Your task to perform on an android device: Open ESPN.com Image 0: 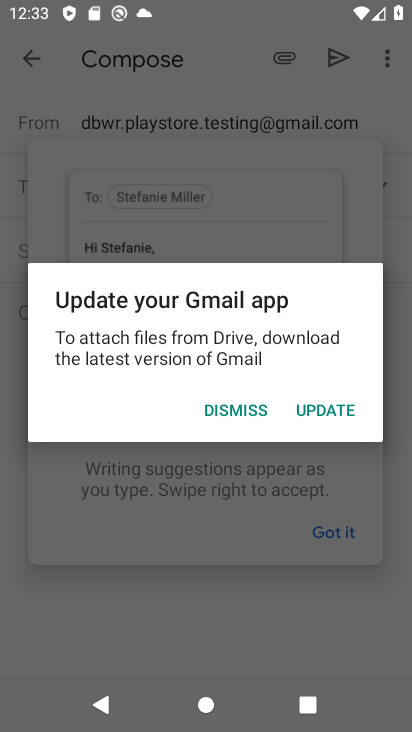
Step 0: press home button
Your task to perform on an android device: Open ESPN.com Image 1: 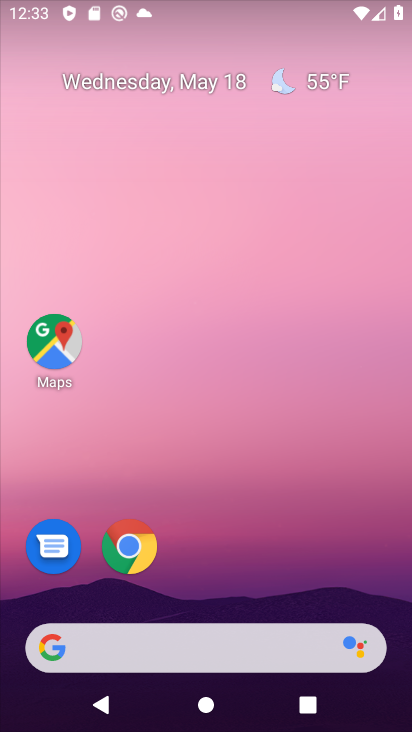
Step 1: drag from (331, 568) to (341, 92)
Your task to perform on an android device: Open ESPN.com Image 2: 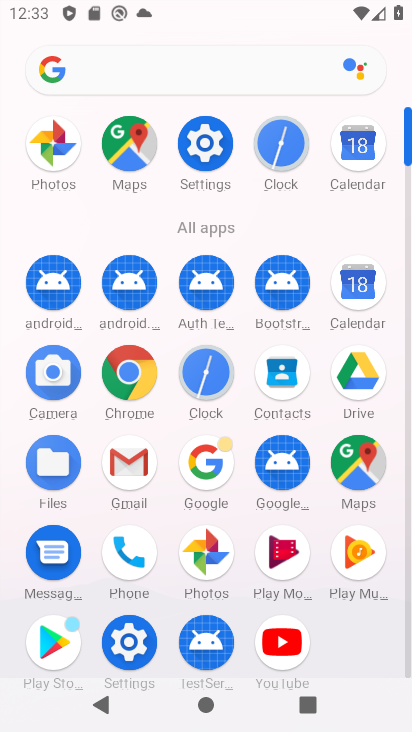
Step 2: click (135, 390)
Your task to perform on an android device: Open ESPN.com Image 3: 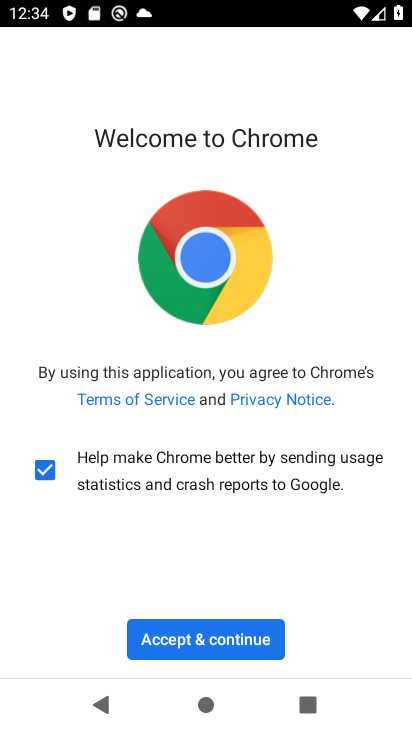
Step 3: click (195, 644)
Your task to perform on an android device: Open ESPN.com Image 4: 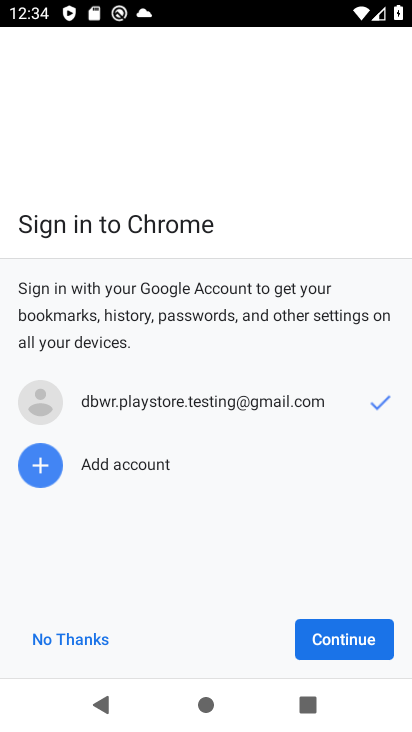
Step 4: click (335, 638)
Your task to perform on an android device: Open ESPN.com Image 5: 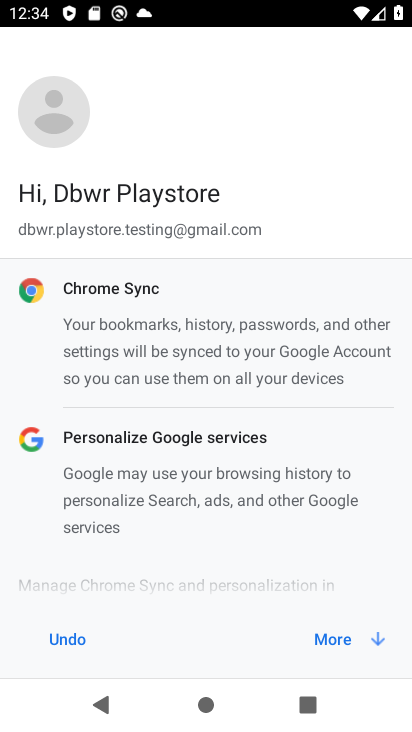
Step 5: click (332, 640)
Your task to perform on an android device: Open ESPN.com Image 6: 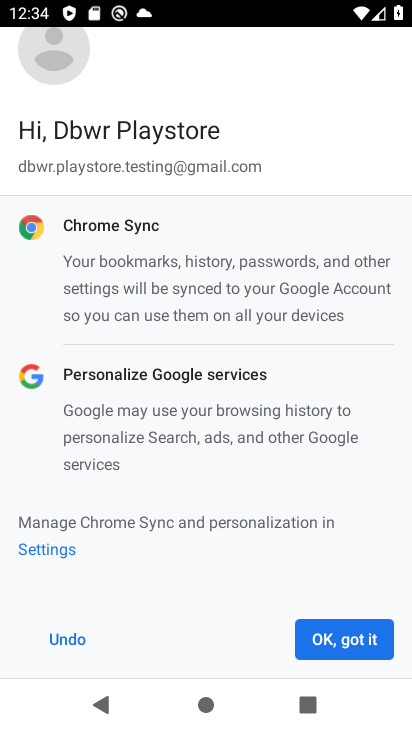
Step 6: click (332, 640)
Your task to perform on an android device: Open ESPN.com Image 7: 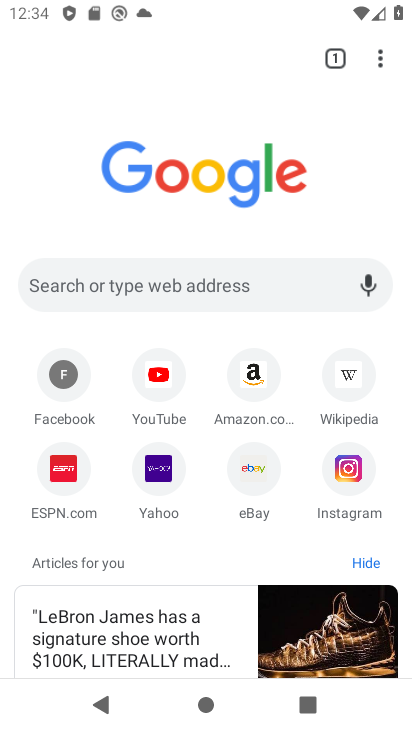
Step 7: click (222, 280)
Your task to perform on an android device: Open ESPN.com Image 8: 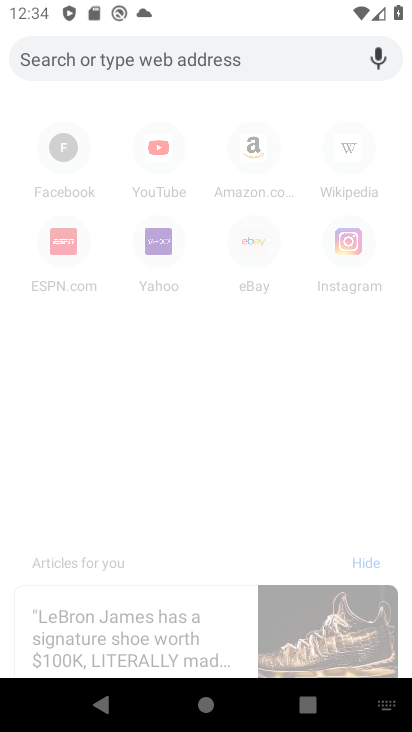
Step 8: type "espn.com"
Your task to perform on an android device: Open ESPN.com Image 9: 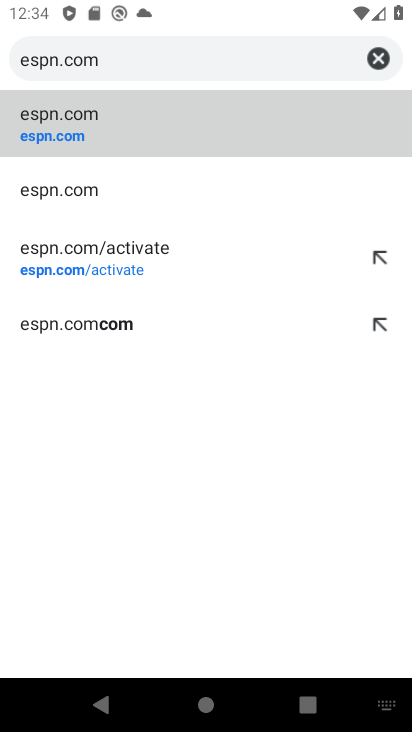
Step 9: click (167, 137)
Your task to perform on an android device: Open ESPN.com Image 10: 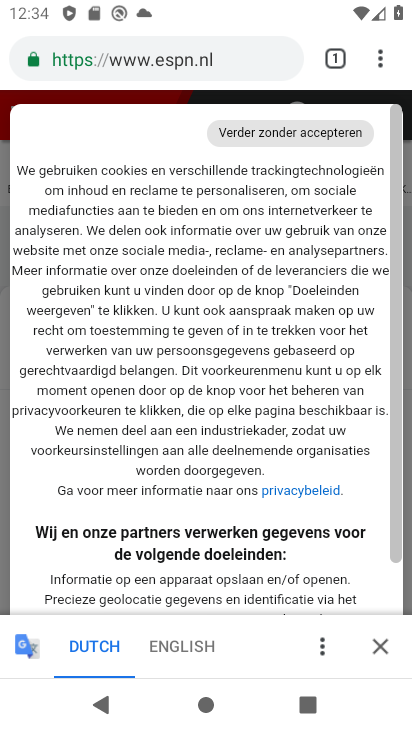
Step 10: task complete